Your task to perform on an android device: Open Youtube and go to the subscriptions tab Image 0: 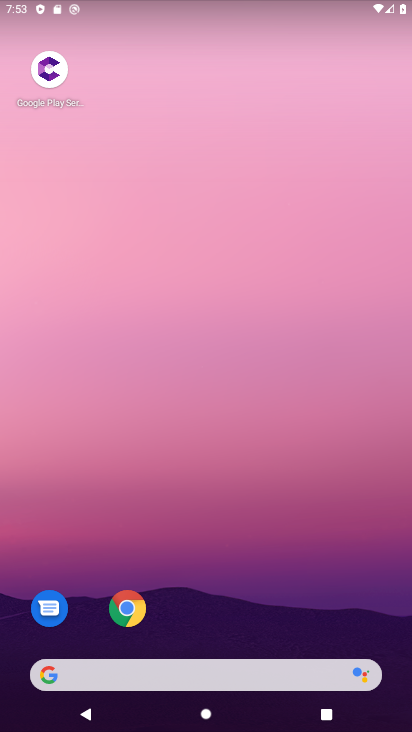
Step 0: drag from (319, 585) to (323, 18)
Your task to perform on an android device: Open Youtube and go to the subscriptions tab Image 1: 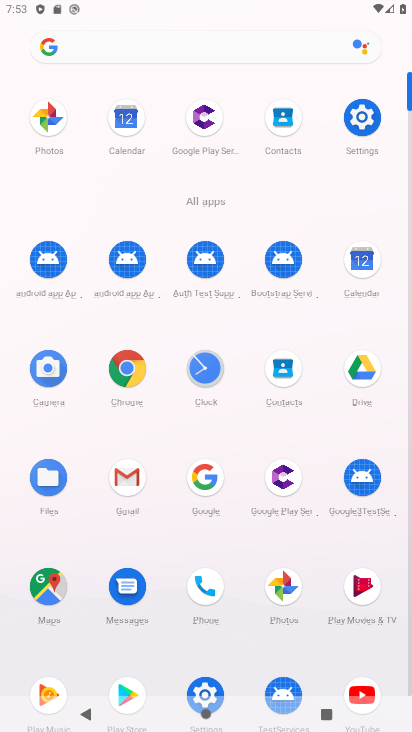
Step 1: click (351, 688)
Your task to perform on an android device: Open Youtube and go to the subscriptions tab Image 2: 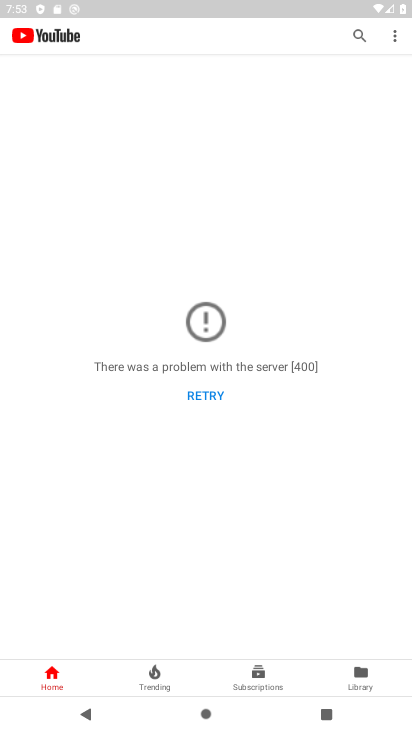
Step 2: click (244, 680)
Your task to perform on an android device: Open Youtube and go to the subscriptions tab Image 3: 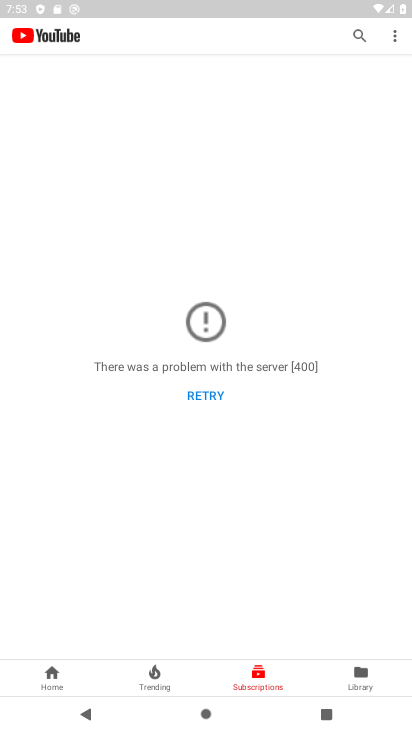
Step 3: task complete